Your task to perform on an android device: Go to Android settings Image 0: 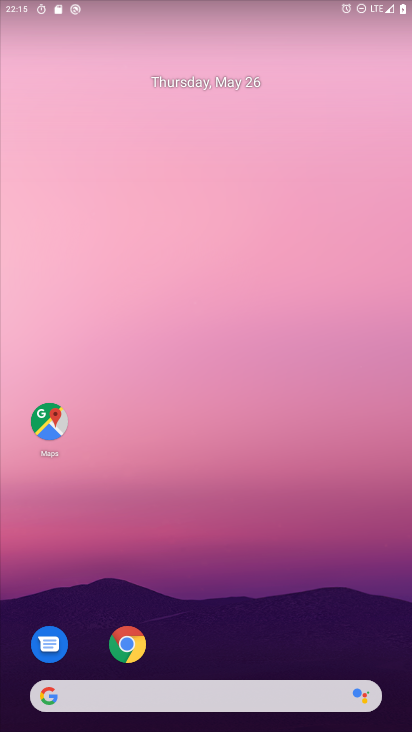
Step 0: drag from (168, 643) to (189, 344)
Your task to perform on an android device: Go to Android settings Image 1: 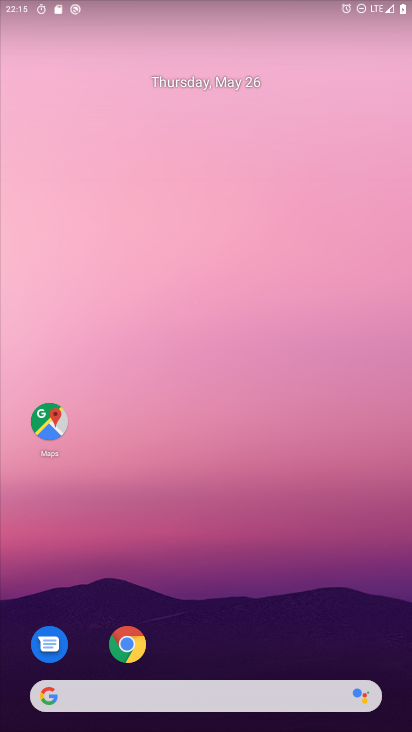
Step 1: drag from (181, 649) to (180, 142)
Your task to perform on an android device: Go to Android settings Image 2: 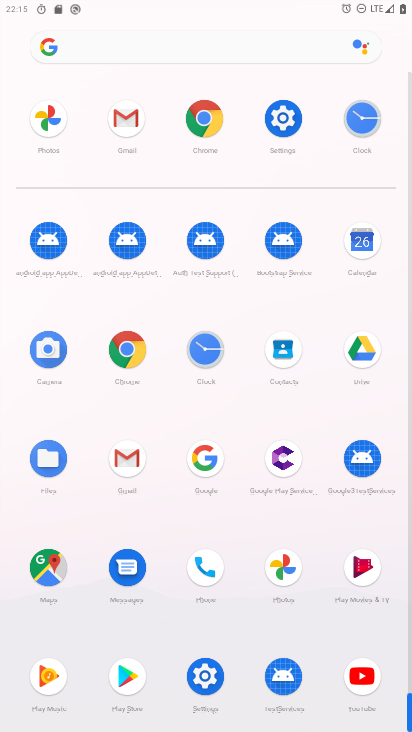
Step 2: click (282, 105)
Your task to perform on an android device: Go to Android settings Image 3: 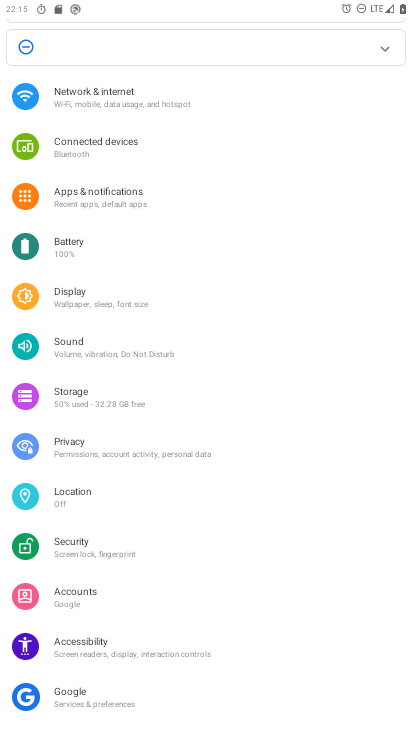
Step 3: drag from (144, 680) to (80, 15)
Your task to perform on an android device: Go to Android settings Image 4: 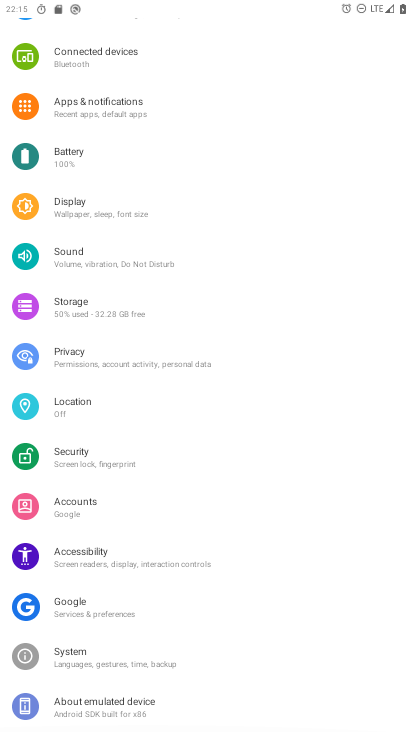
Step 4: drag from (210, 684) to (252, 155)
Your task to perform on an android device: Go to Android settings Image 5: 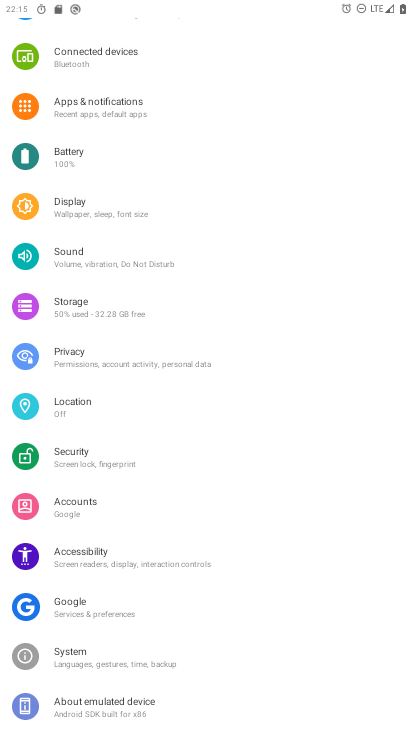
Step 5: click (150, 710)
Your task to perform on an android device: Go to Android settings Image 6: 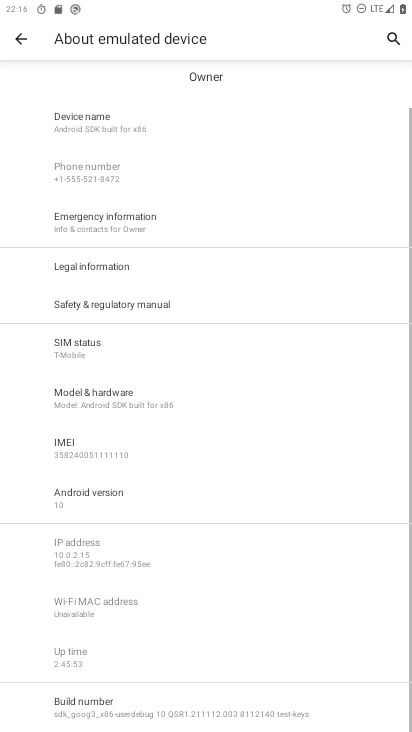
Step 6: click (141, 502)
Your task to perform on an android device: Go to Android settings Image 7: 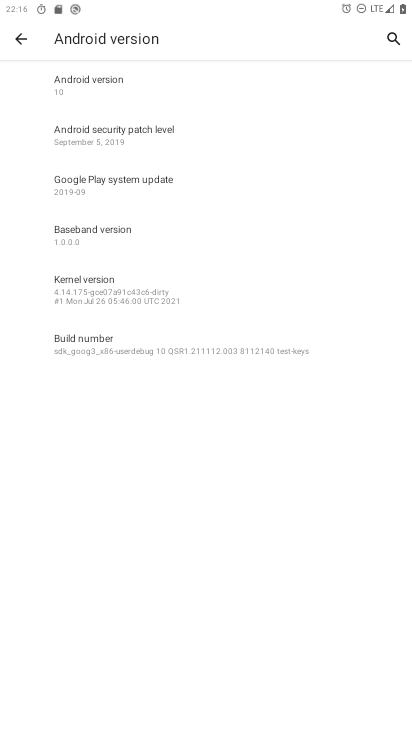
Step 7: task complete